Your task to perform on an android device: turn off data saver in the chrome app Image 0: 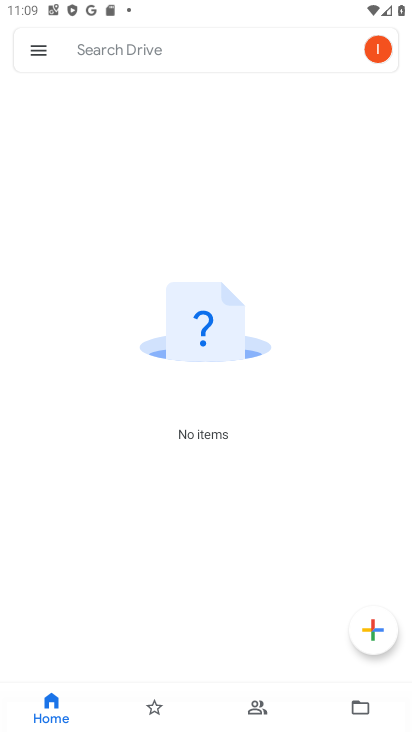
Step 0: press home button
Your task to perform on an android device: turn off data saver in the chrome app Image 1: 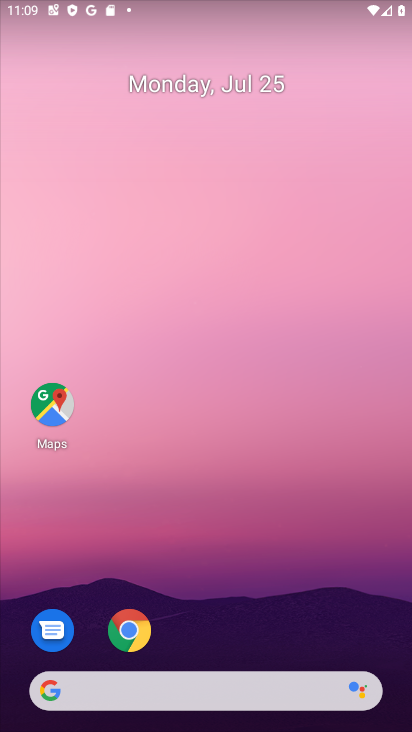
Step 1: click (132, 631)
Your task to perform on an android device: turn off data saver in the chrome app Image 2: 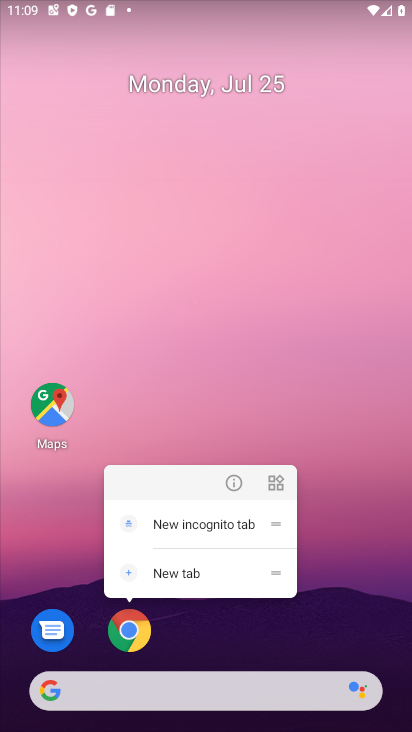
Step 2: click (132, 631)
Your task to perform on an android device: turn off data saver in the chrome app Image 3: 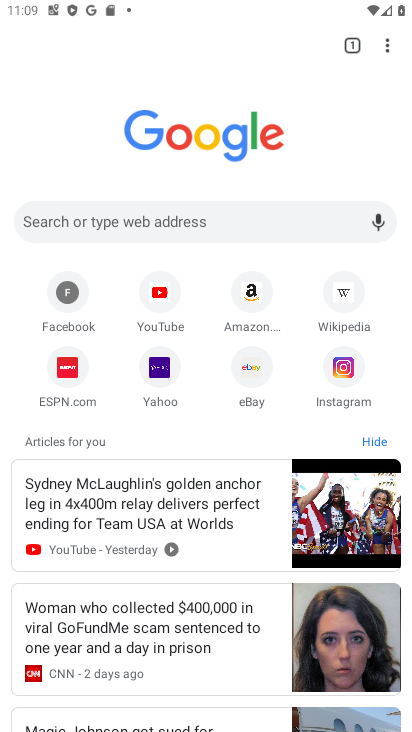
Step 3: click (390, 48)
Your task to perform on an android device: turn off data saver in the chrome app Image 4: 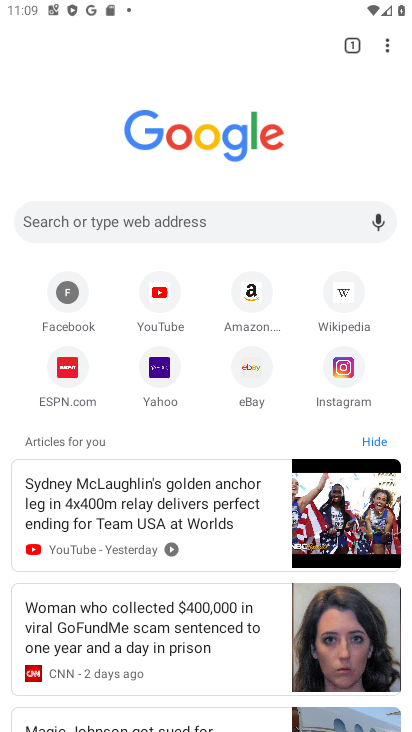
Step 4: drag from (388, 43) to (246, 382)
Your task to perform on an android device: turn off data saver in the chrome app Image 5: 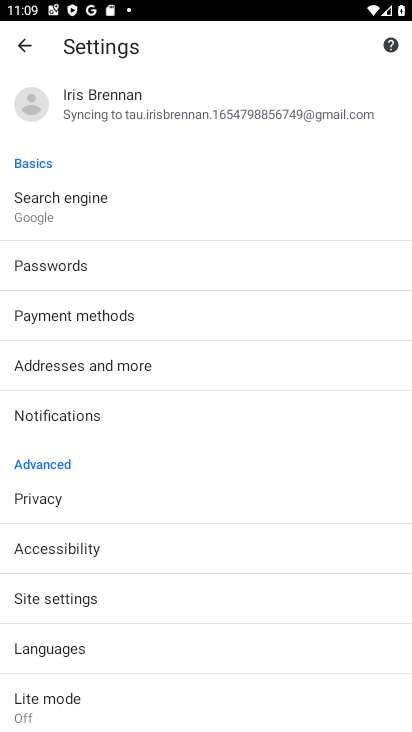
Step 5: click (69, 698)
Your task to perform on an android device: turn off data saver in the chrome app Image 6: 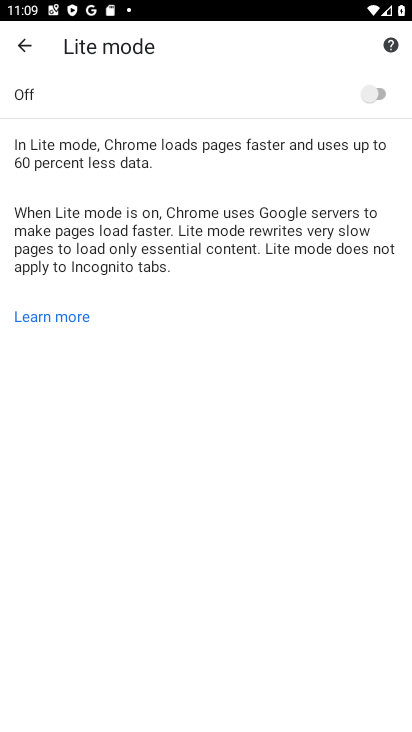
Step 6: task complete